Your task to perform on an android device: Go to Yahoo.com Image 0: 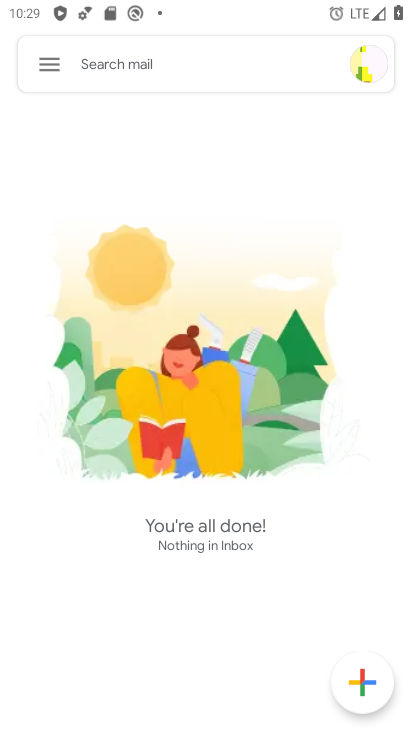
Step 0: press home button
Your task to perform on an android device: Go to Yahoo.com Image 1: 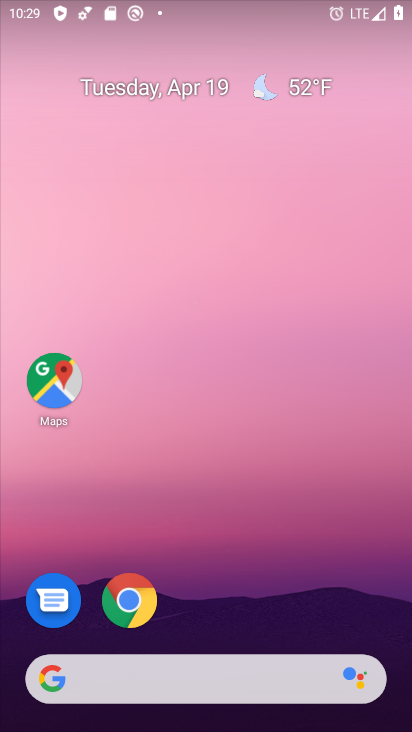
Step 1: drag from (236, 519) to (117, 181)
Your task to perform on an android device: Go to Yahoo.com Image 2: 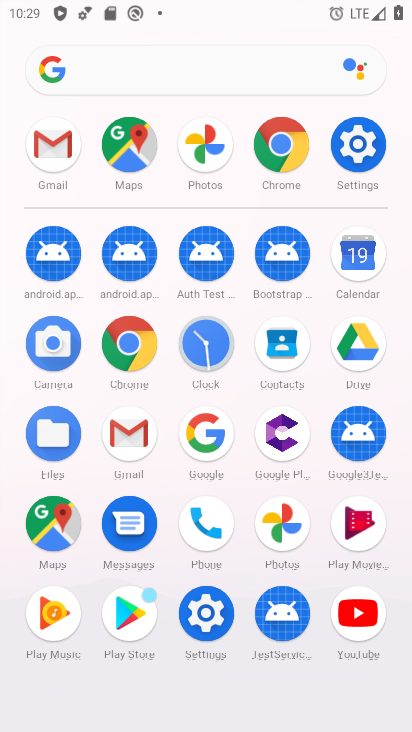
Step 2: click (115, 354)
Your task to perform on an android device: Go to Yahoo.com Image 3: 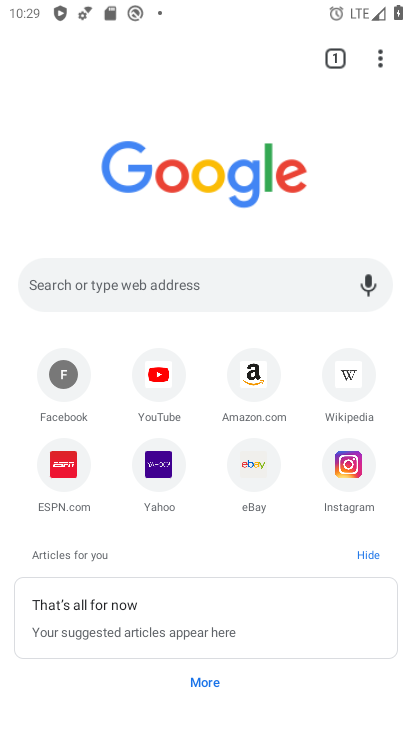
Step 3: click (154, 448)
Your task to perform on an android device: Go to Yahoo.com Image 4: 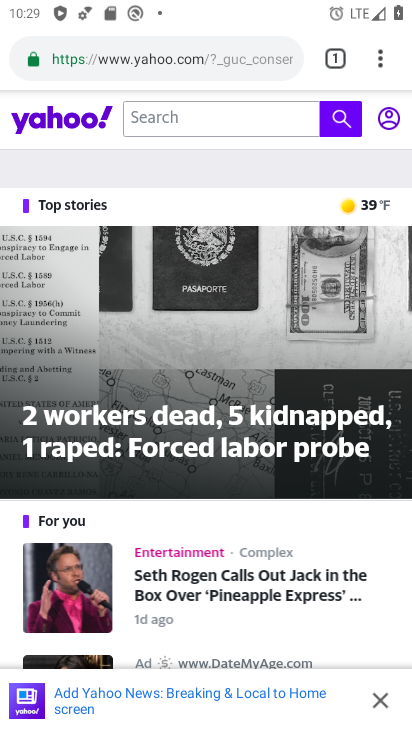
Step 4: task complete